Your task to perform on an android device: allow notifications from all sites in the chrome app Image 0: 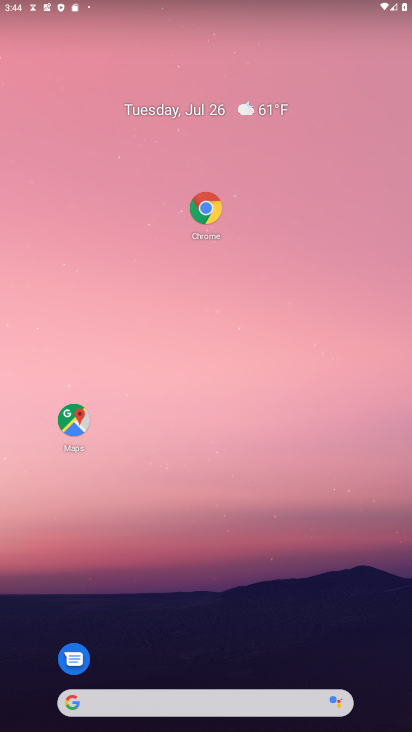
Step 0: click (208, 205)
Your task to perform on an android device: allow notifications from all sites in the chrome app Image 1: 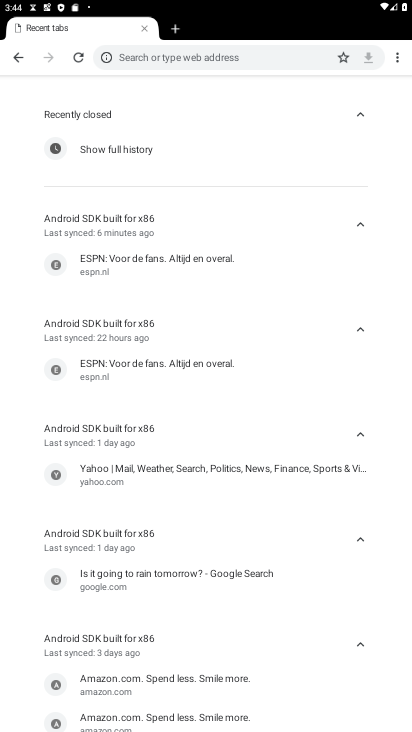
Step 1: click (394, 58)
Your task to perform on an android device: allow notifications from all sites in the chrome app Image 2: 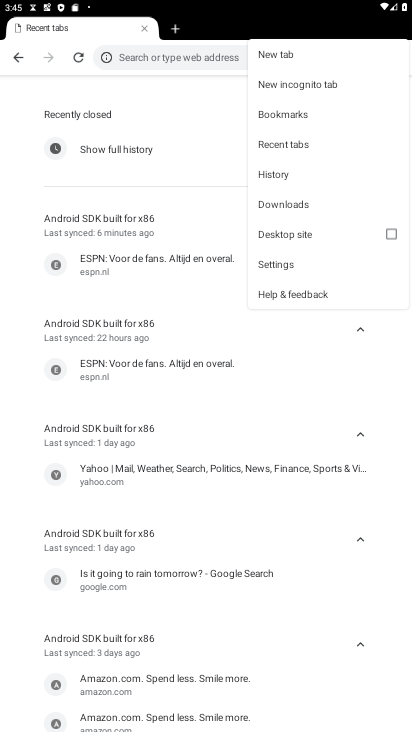
Step 2: click (281, 267)
Your task to perform on an android device: allow notifications from all sites in the chrome app Image 3: 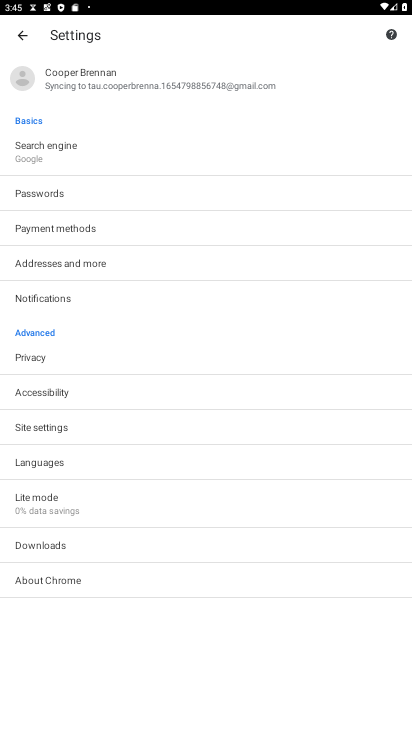
Step 3: click (71, 427)
Your task to perform on an android device: allow notifications from all sites in the chrome app Image 4: 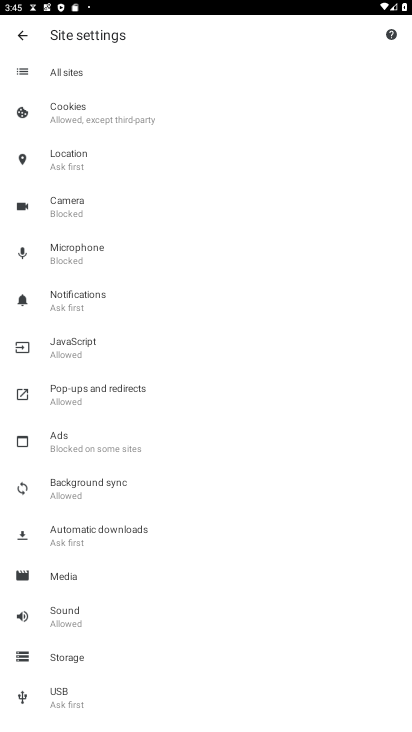
Step 4: click (77, 72)
Your task to perform on an android device: allow notifications from all sites in the chrome app Image 5: 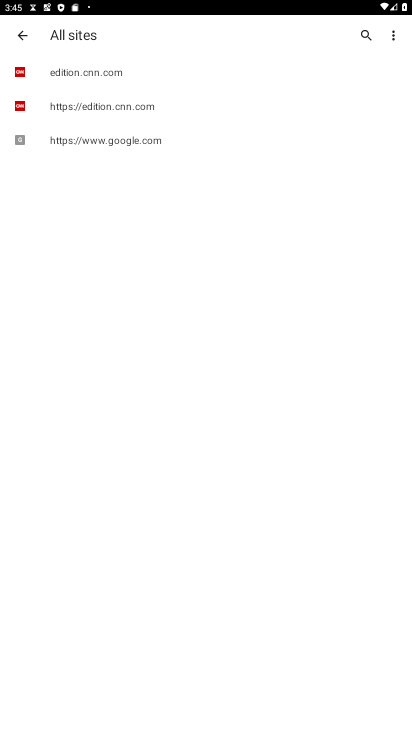
Step 5: click (105, 144)
Your task to perform on an android device: allow notifications from all sites in the chrome app Image 6: 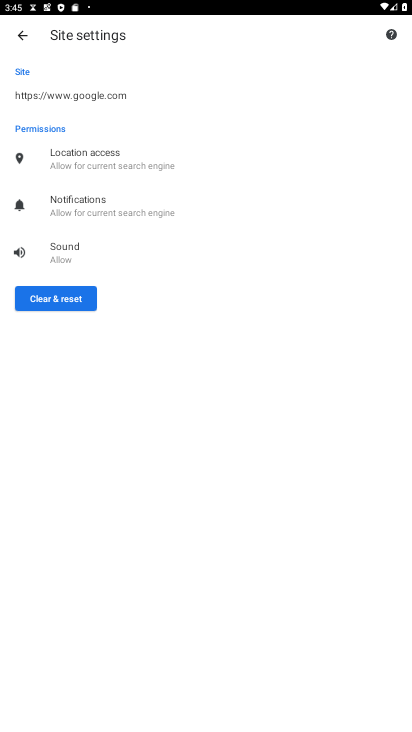
Step 6: click (90, 195)
Your task to perform on an android device: allow notifications from all sites in the chrome app Image 7: 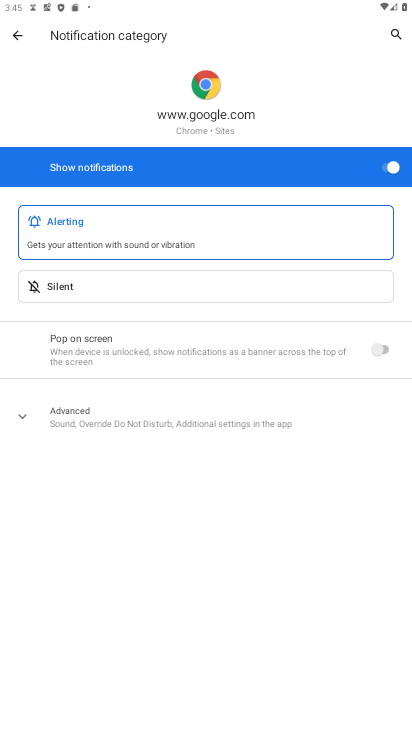
Step 7: task complete